Your task to perform on an android device: Go to CNN.com Image 0: 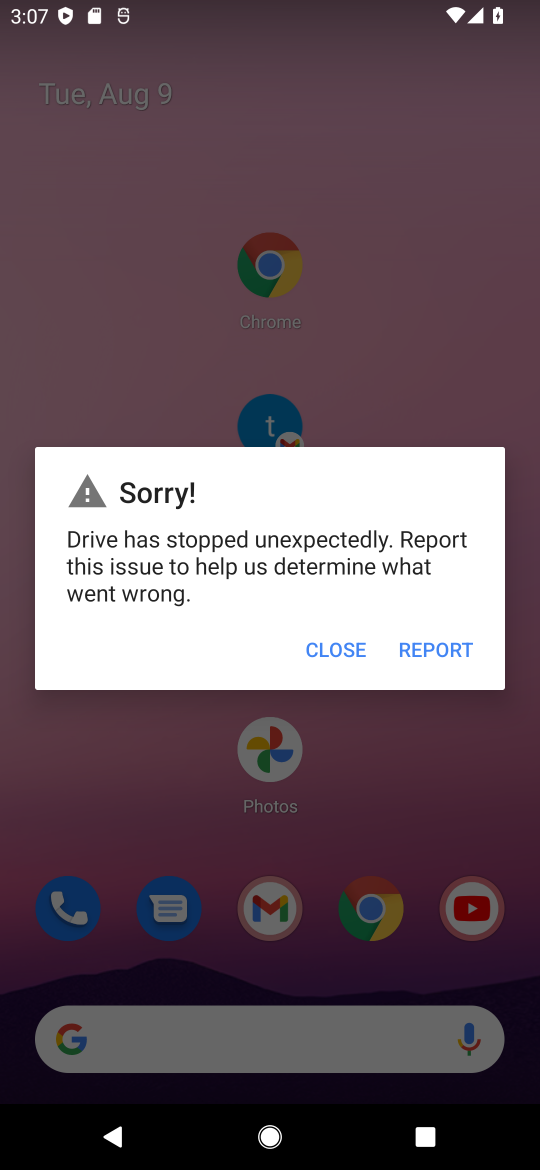
Step 0: click (361, 655)
Your task to perform on an android device: Go to CNN.com Image 1: 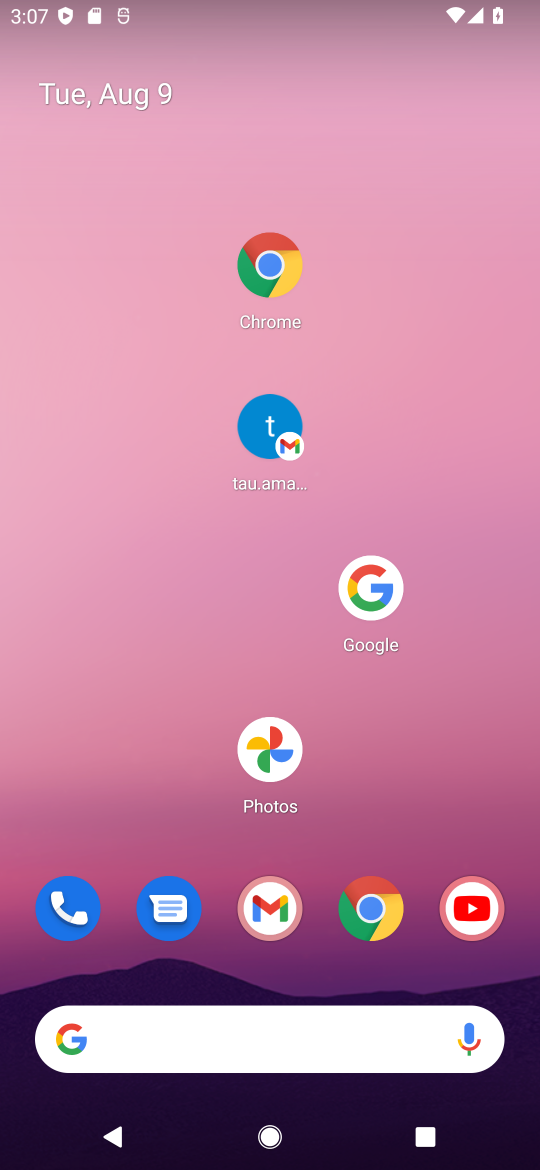
Step 1: drag from (368, 891) to (290, 96)
Your task to perform on an android device: Go to CNN.com Image 2: 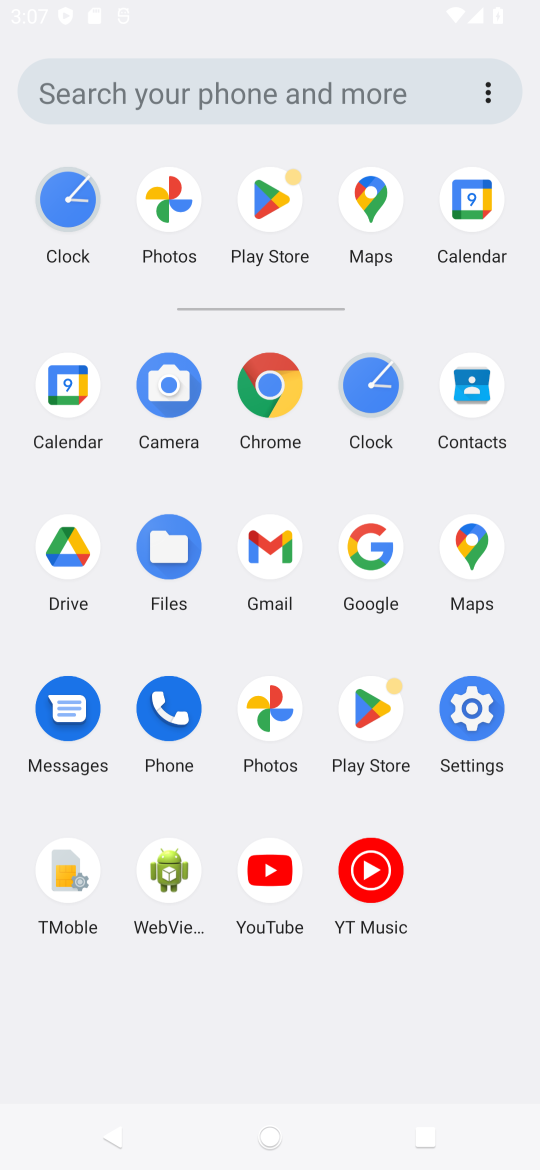
Step 2: drag from (324, 771) to (211, 178)
Your task to perform on an android device: Go to CNN.com Image 3: 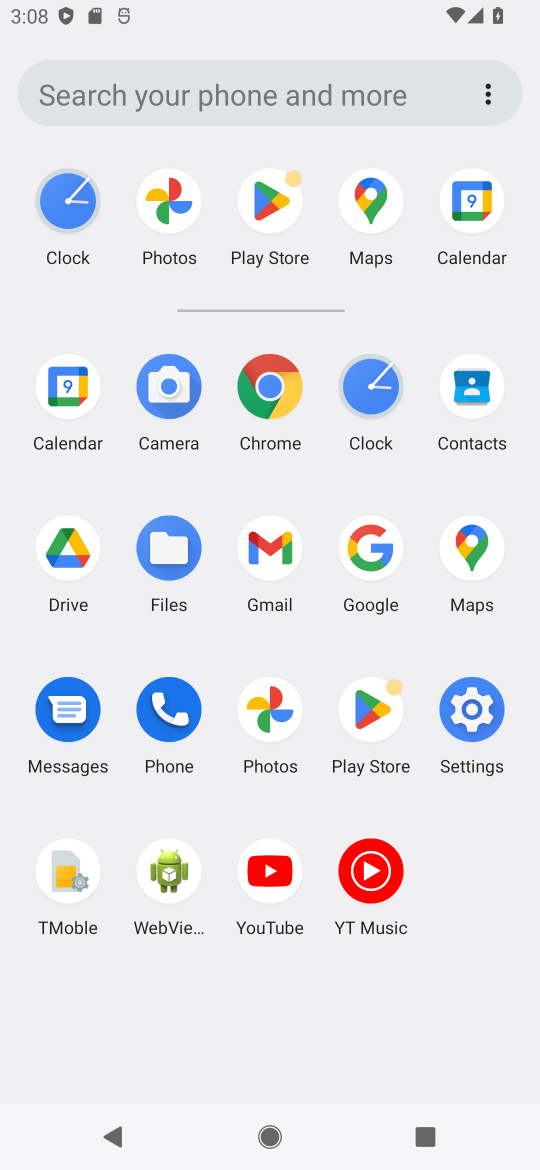
Step 3: drag from (266, 380) to (307, 429)
Your task to perform on an android device: Go to CNN.com Image 4: 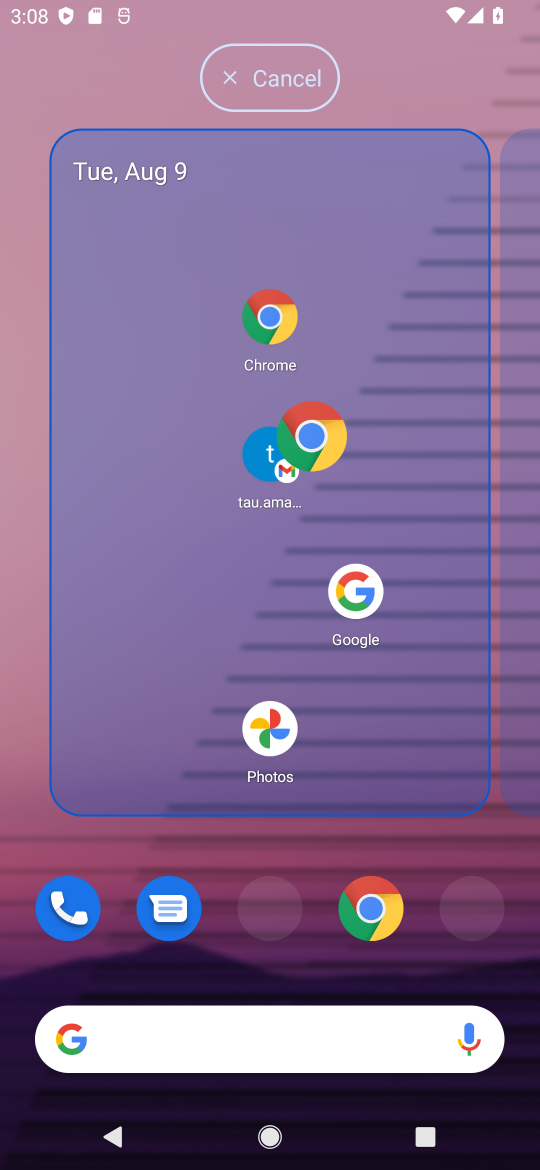
Step 4: click (267, 406)
Your task to perform on an android device: Go to CNN.com Image 5: 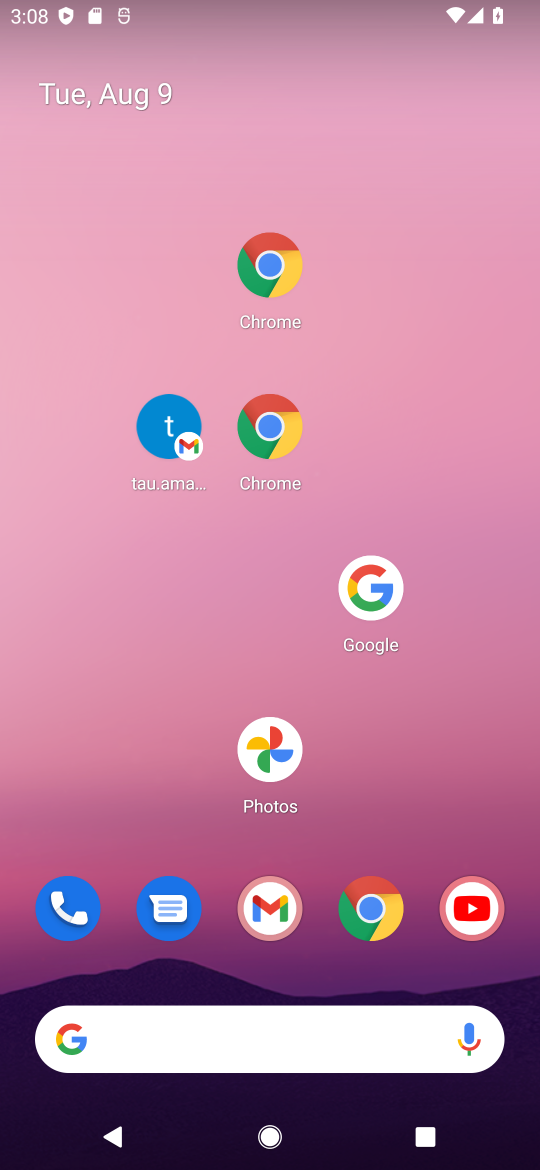
Step 5: drag from (161, 263) to (117, 10)
Your task to perform on an android device: Go to CNN.com Image 6: 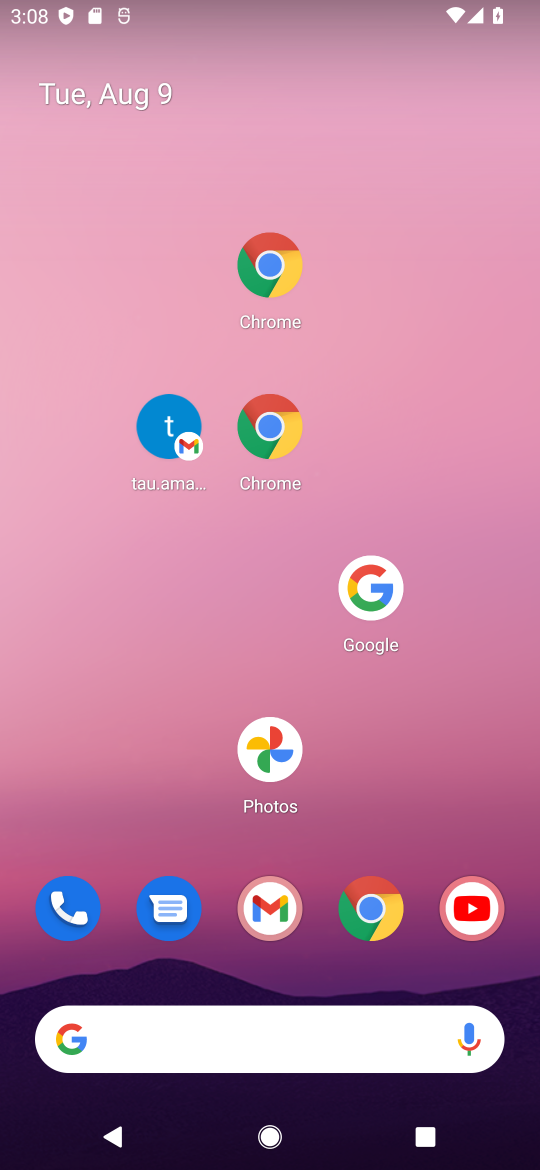
Step 6: drag from (266, 791) to (354, 48)
Your task to perform on an android device: Go to CNN.com Image 7: 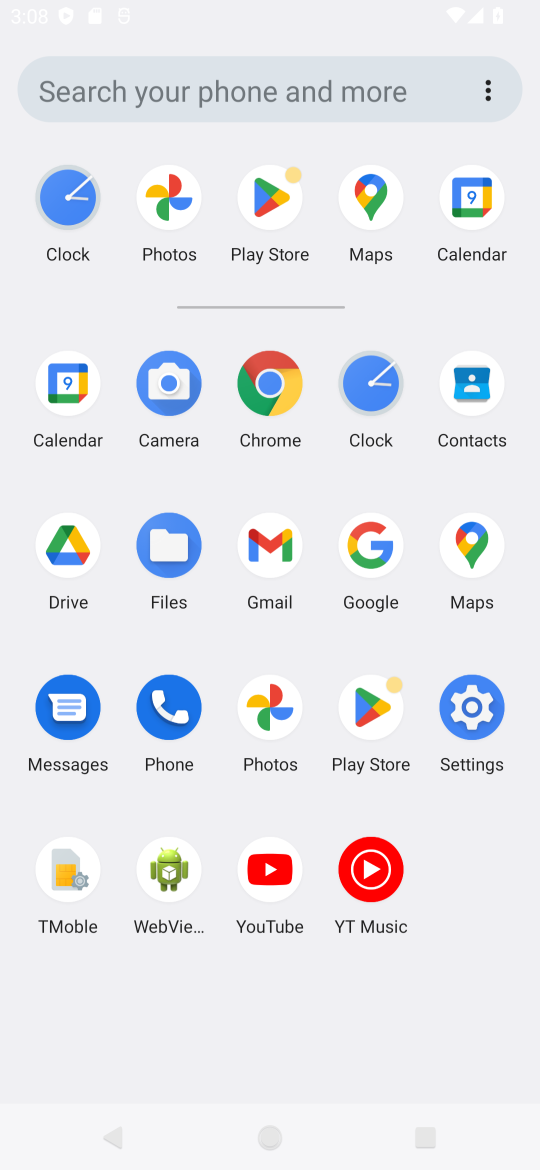
Step 7: drag from (350, 766) to (281, 147)
Your task to perform on an android device: Go to CNN.com Image 8: 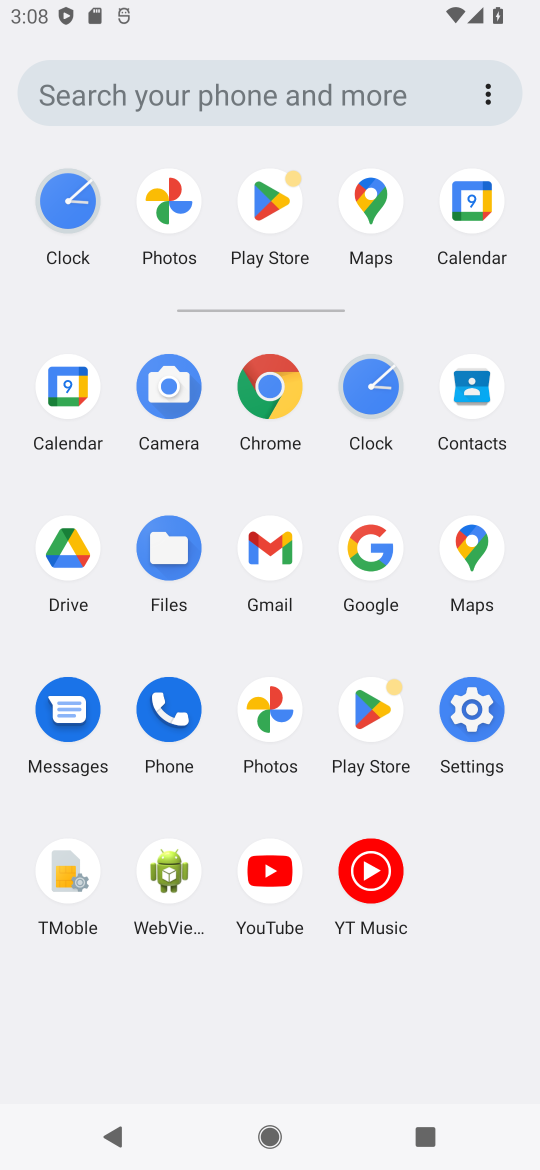
Step 8: click (269, 406)
Your task to perform on an android device: Go to CNN.com Image 9: 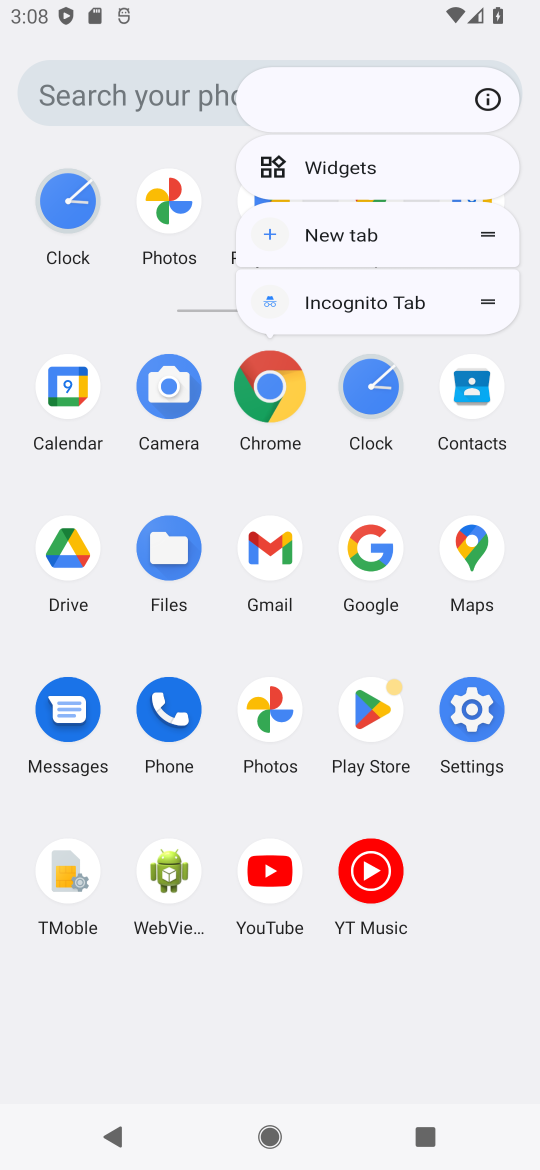
Step 9: click (269, 406)
Your task to perform on an android device: Go to CNN.com Image 10: 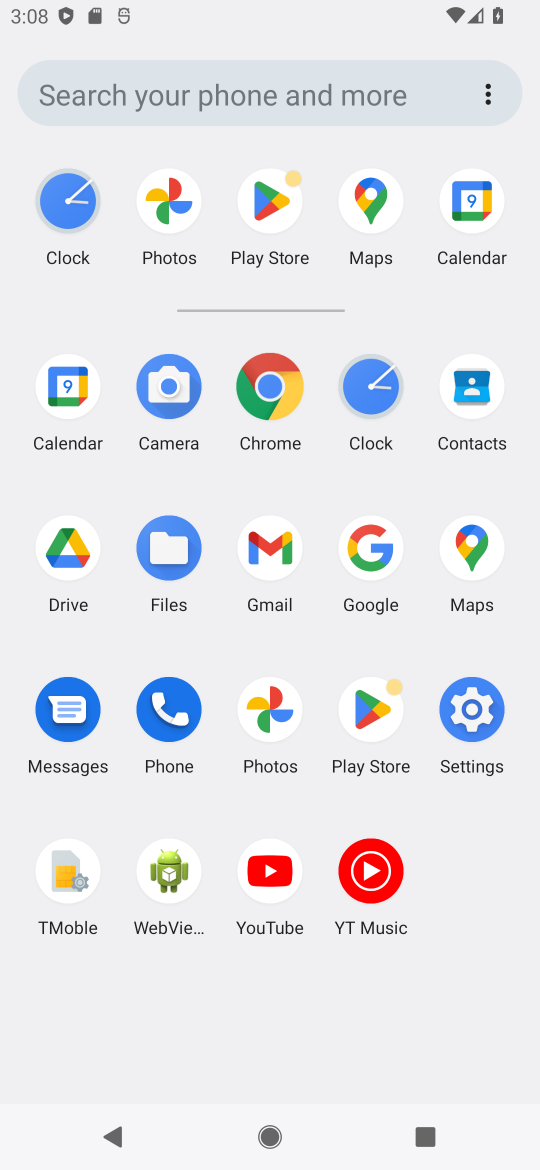
Step 10: click (252, 394)
Your task to perform on an android device: Go to CNN.com Image 11: 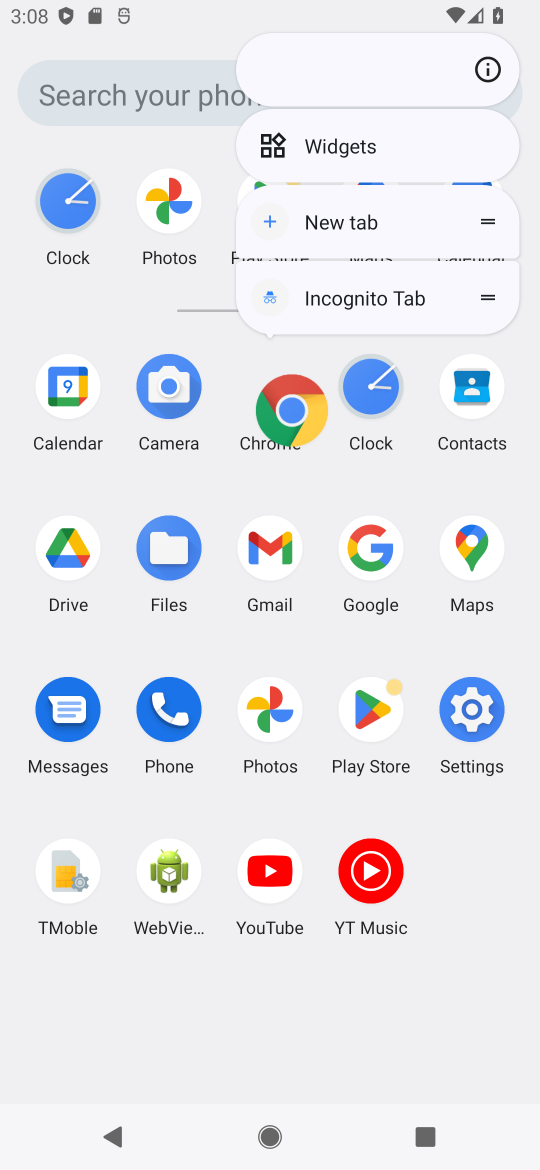
Step 11: click (272, 418)
Your task to perform on an android device: Go to CNN.com Image 12: 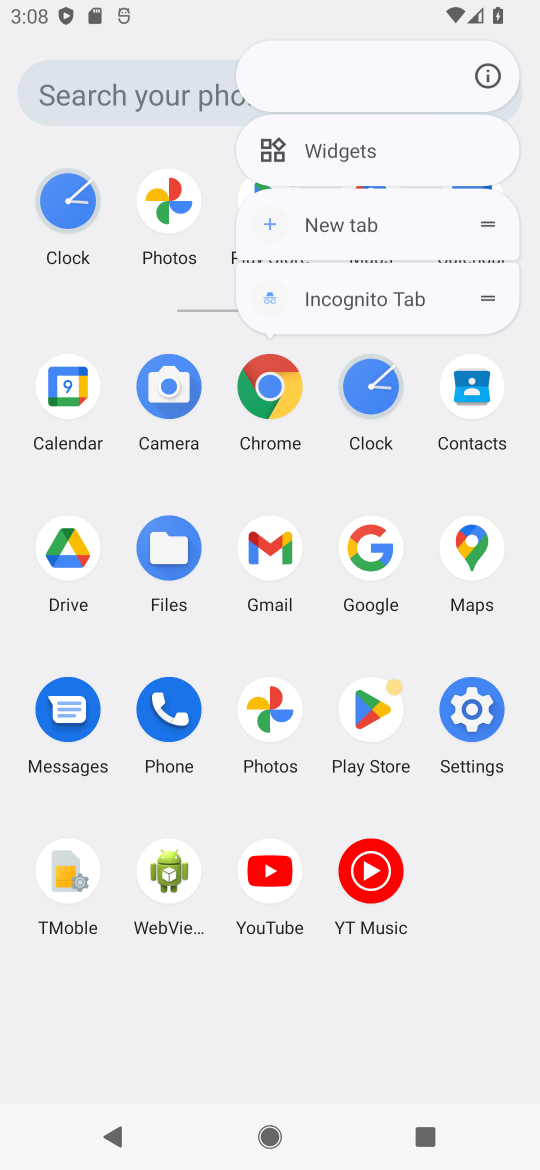
Step 12: click (269, 423)
Your task to perform on an android device: Go to CNN.com Image 13: 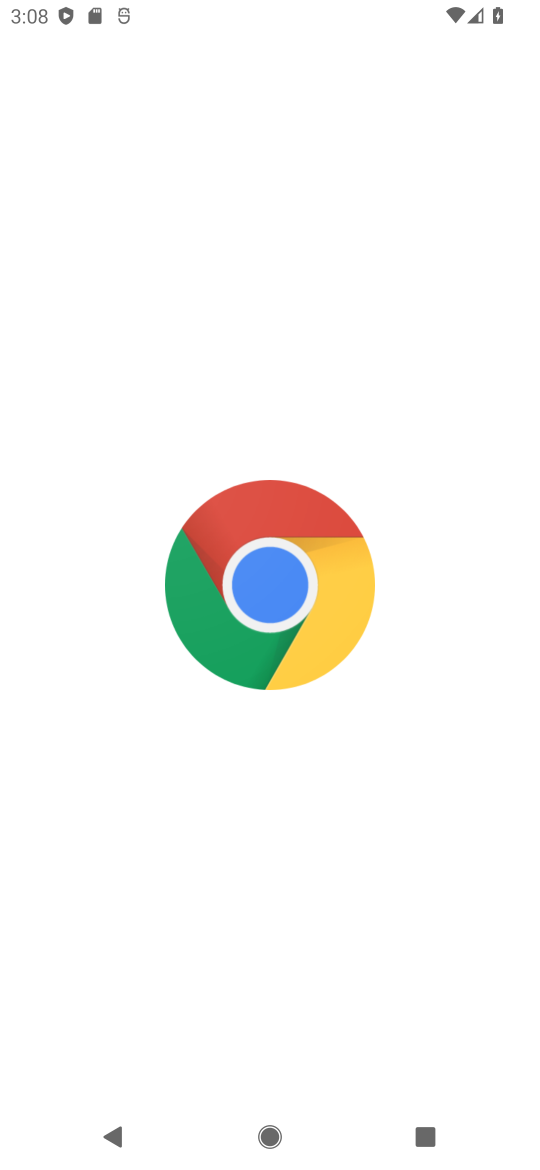
Step 13: click (271, 397)
Your task to perform on an android device: Go to CNN.com Image 14: 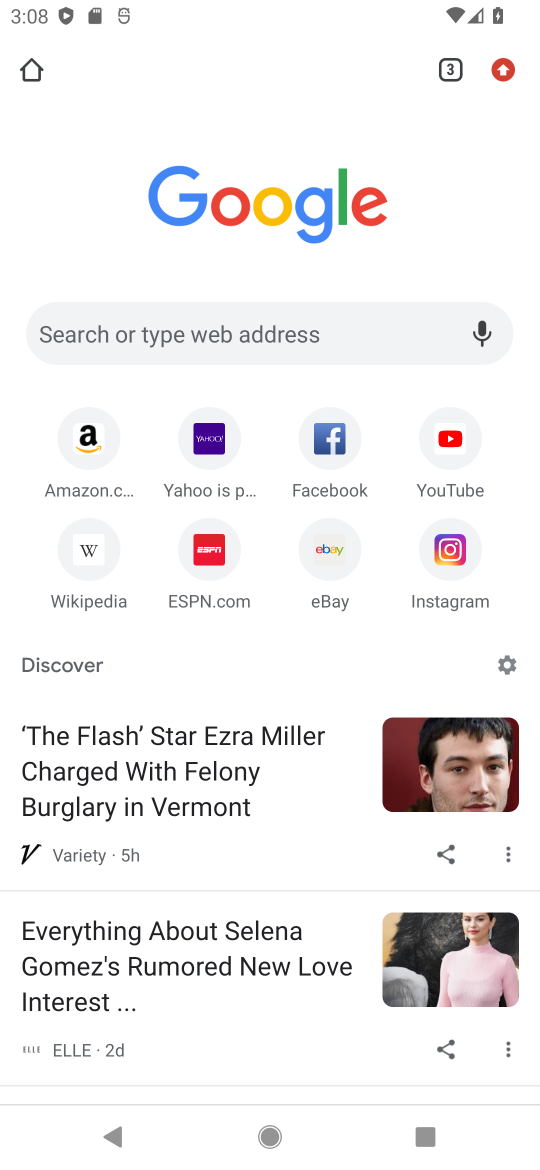
Step 14: click (131, 344)
Your task to perform on an android device: Go to CNN.com Image 15: 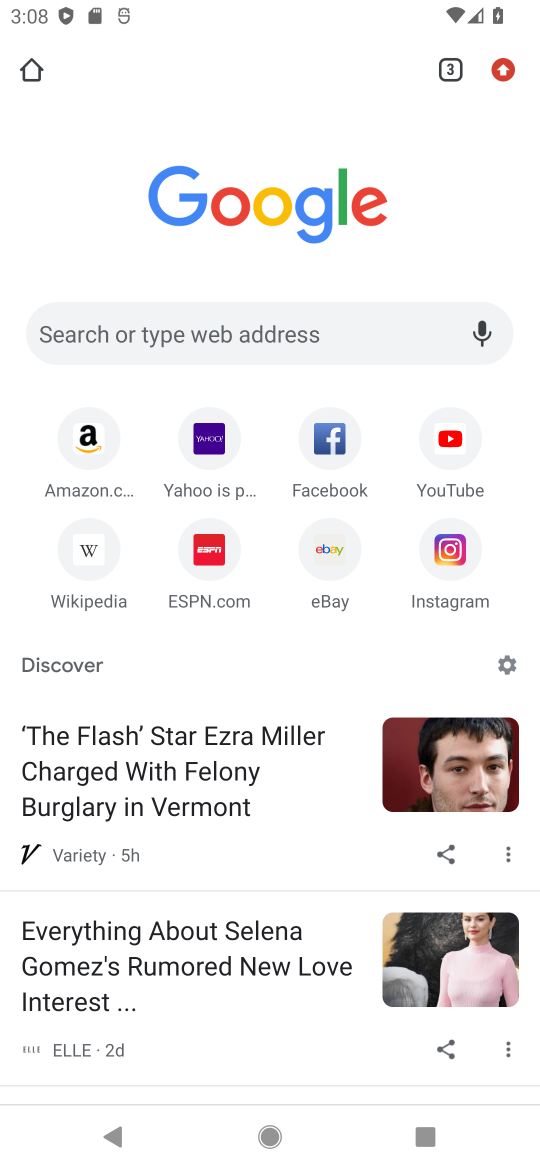
Step 15: click (142, 345)
Your task to perform on an android device: Go to CNN.com Image 16: 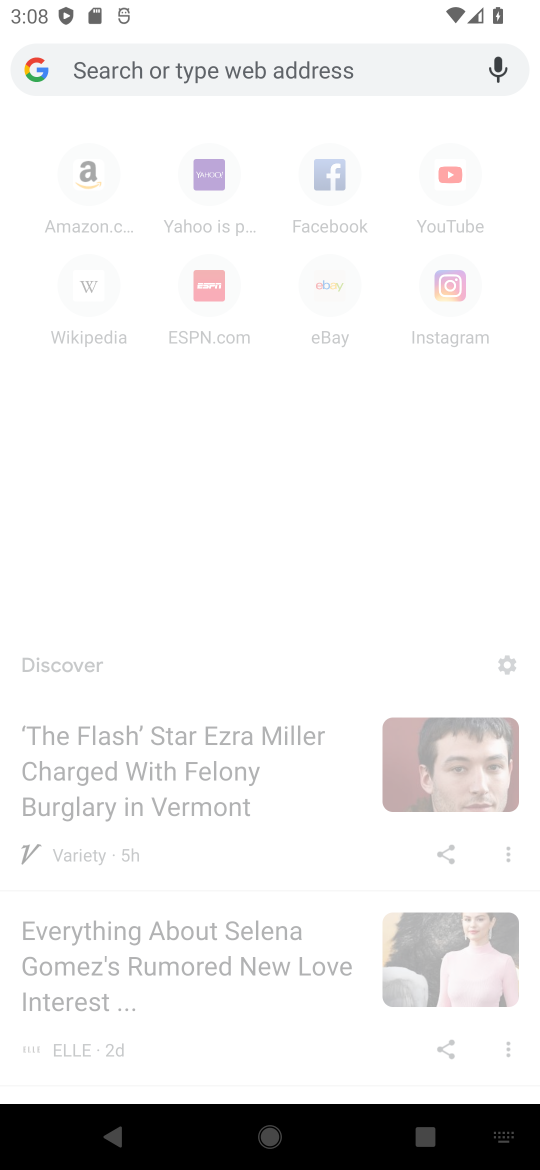
Step 16: type "CNN.com"
Your task to perform on an android device: Go to CNN.com Image 17: 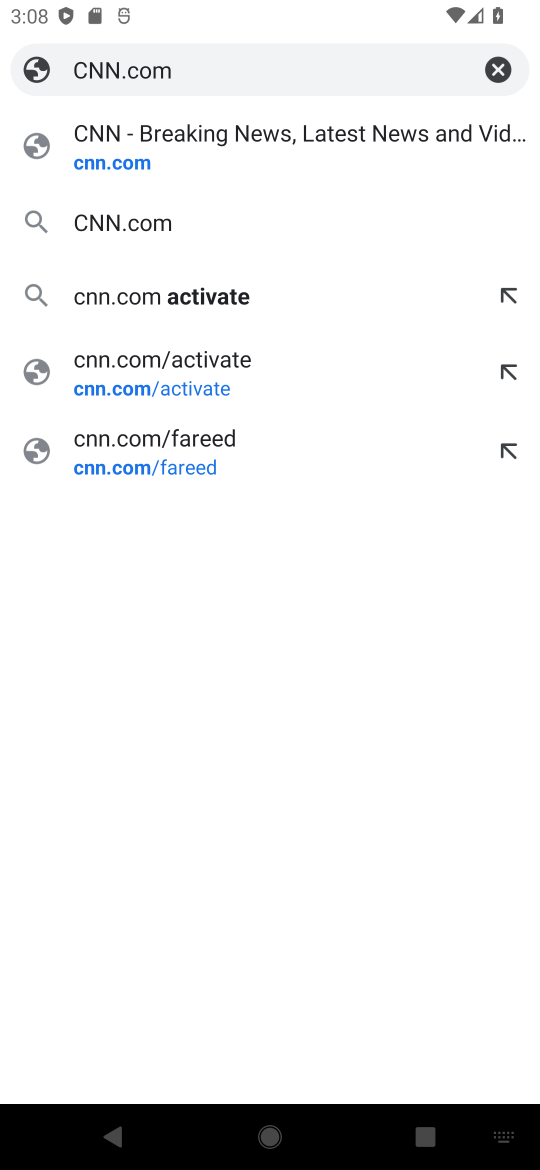
Step 17: click (127, 149)
Your task to perform on an android device: Go to CNN.com Image 18: 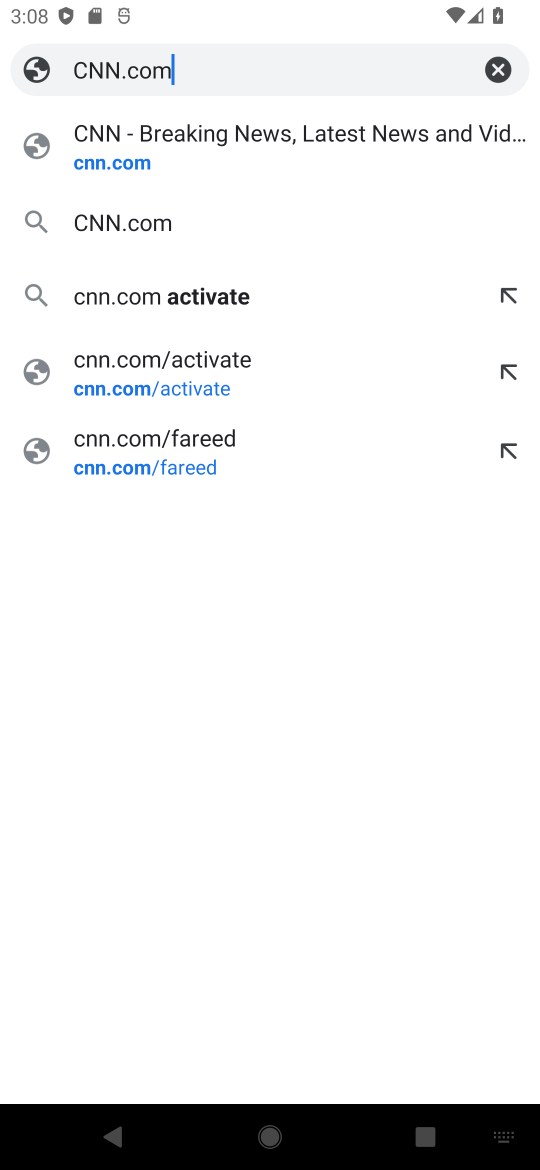
Step 18: click (125, 150)
Your task to perform on an android device: Go to CNN.com Image 19: 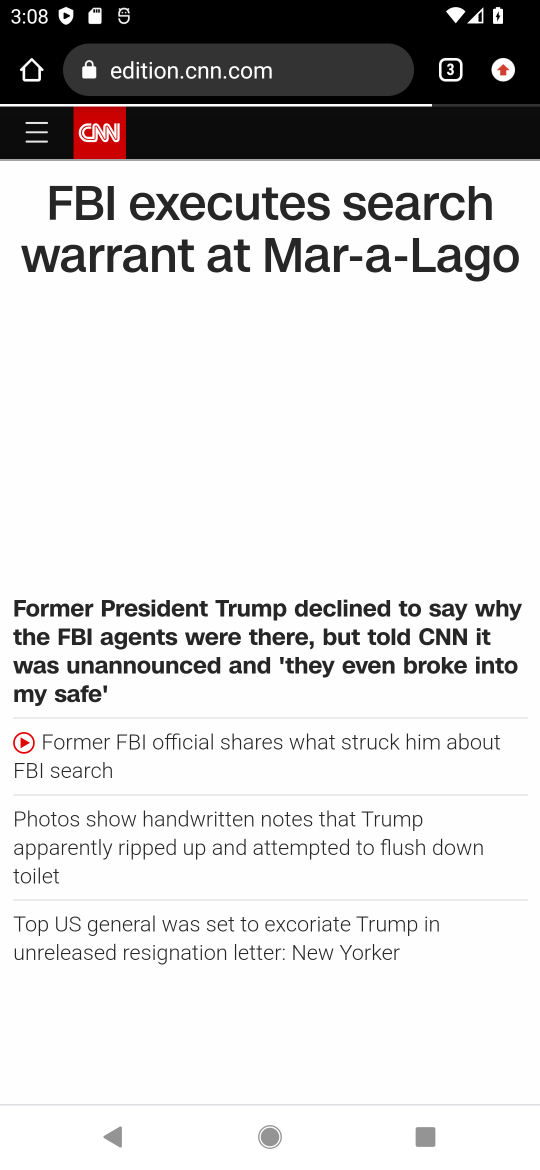
Step 19: task complete